Your task to perform on an android device: turn off javascript in the chrome app Image 0: 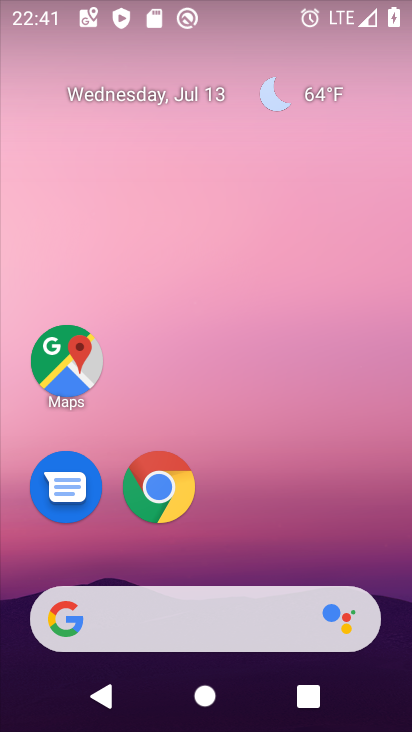
Step 0: click (144, 485)
Your task to perform on an android device: turn off javascript in the chrome app Image 1: 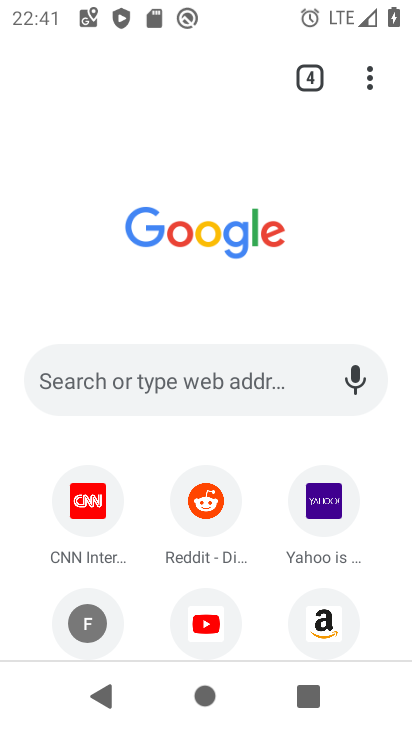
Step 1: drag from (367, 75) to (116, 547)
Your task to perform on an android device: turn off javascript in the chrome app Image 2: 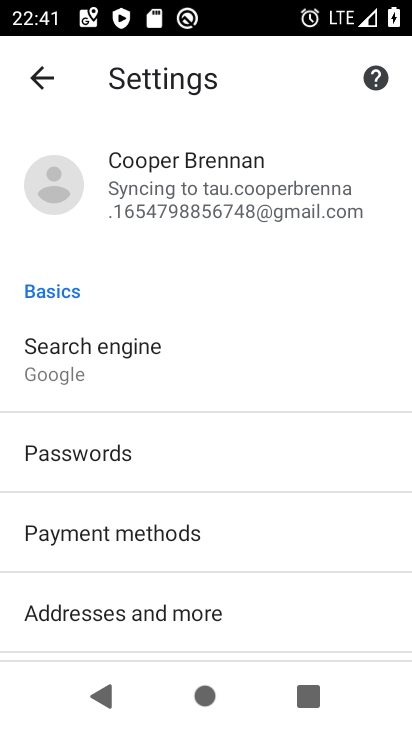
Step 2: drag from (149, 632) to (188, 54)
Your task to perform on an android device: turn off javascript in the chrome app Image 3: 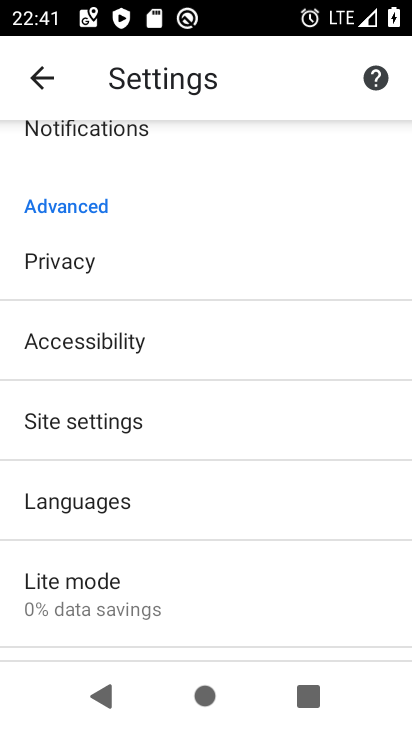
Step 3: click (79, 429)
Your task to perform on an android device: turn off javascript in the chrome app Image 4: 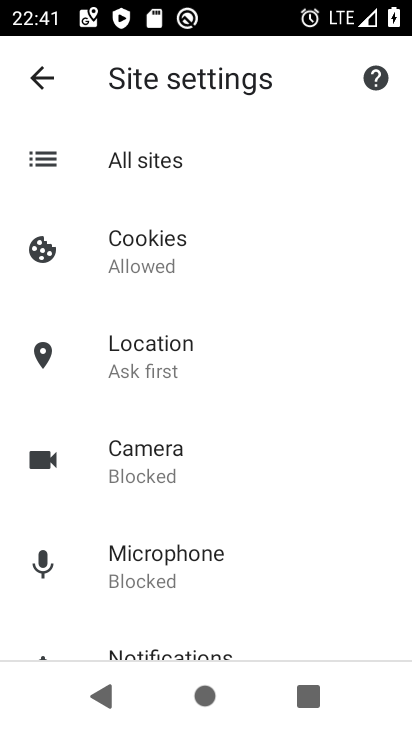
Step 4: drag from (156, 619) to (234, 177)
Your task to perform on an android device: turn off javascript in the chrome app Image 5: 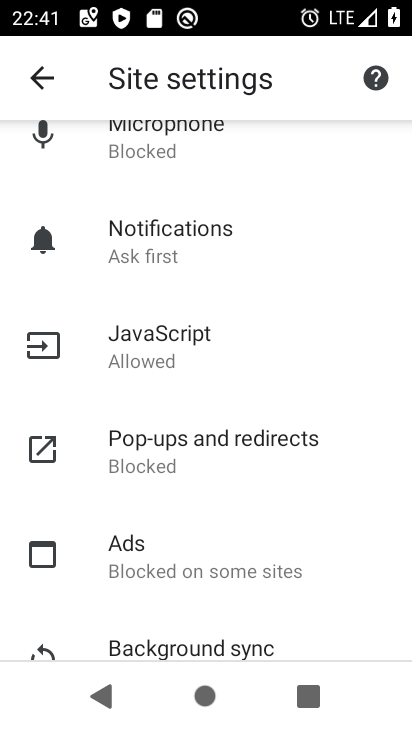
Step 5: click (175, 344)
Your task to perform on an android device: turn off javascript in the chrome app Image 6: 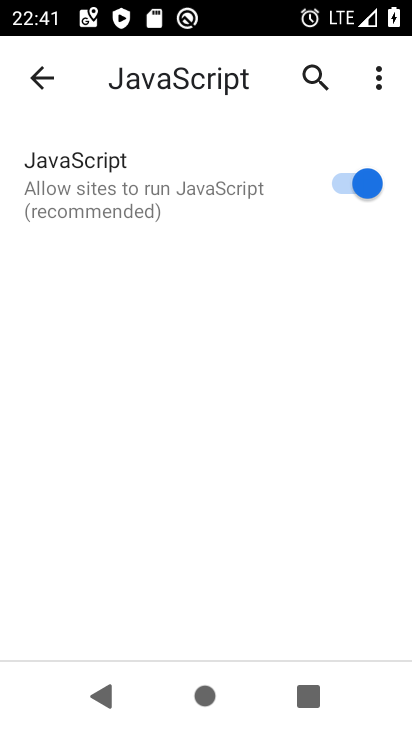
Step 6: click (354, 184)
Your task to perform on an android device: turn off javascript in the chrome app Image 7: 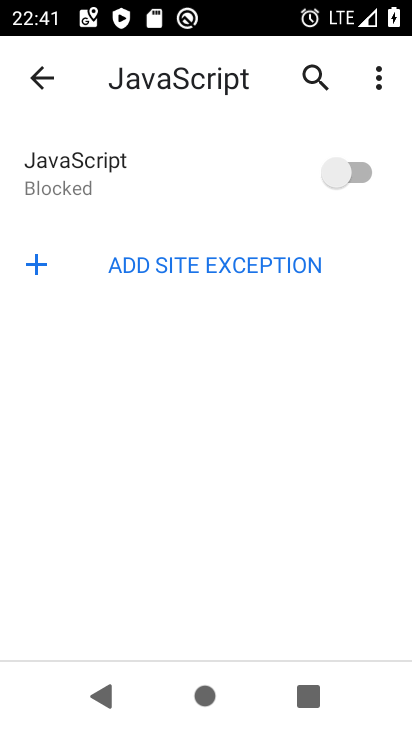
Step 7: task complete